Your task to perform on an android device: set the timer Image 0: 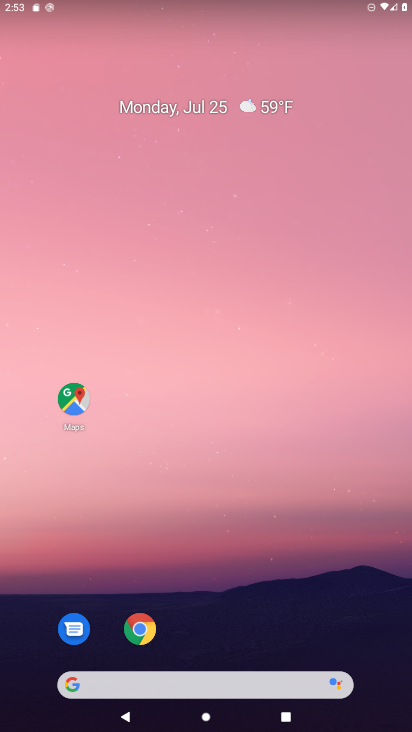
Step 0: click (139, 633)
Your task to perform on an android device: set the timer Image 1: 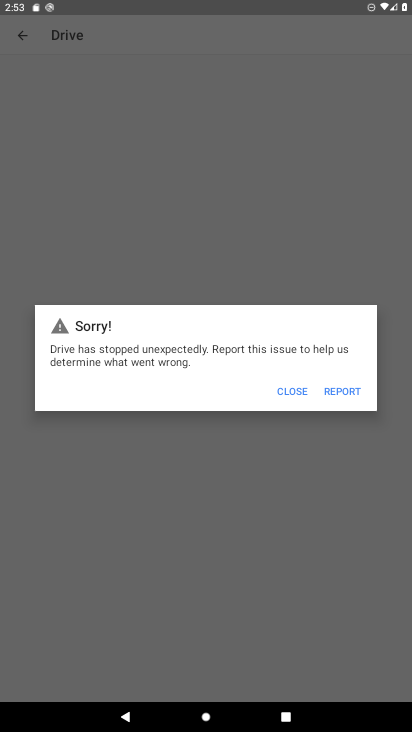
Step 1: press home button
Your task to perform on an android device: set the timer Image 2: 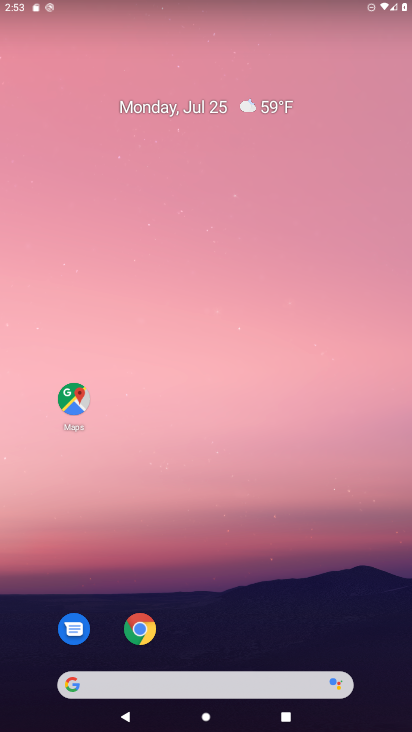
Step 2: drag from (305, 628) to (204, 150)
Your task to perform on an android device: set the timer Image 3: 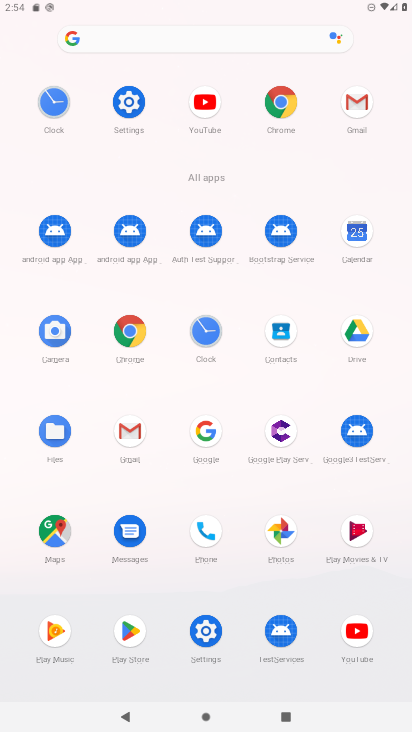
Step 3: click (203, 343)
Your task to perform on an android device: set the timer Image 4: 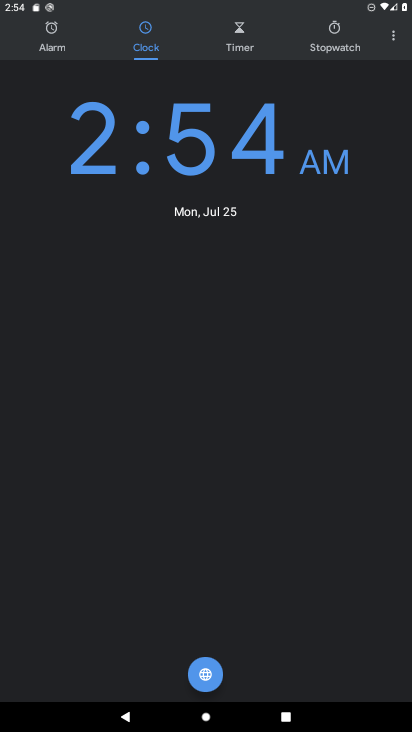
Step 4: click (393, 42)
Your task to perform on an android device: set the timer Image 5: 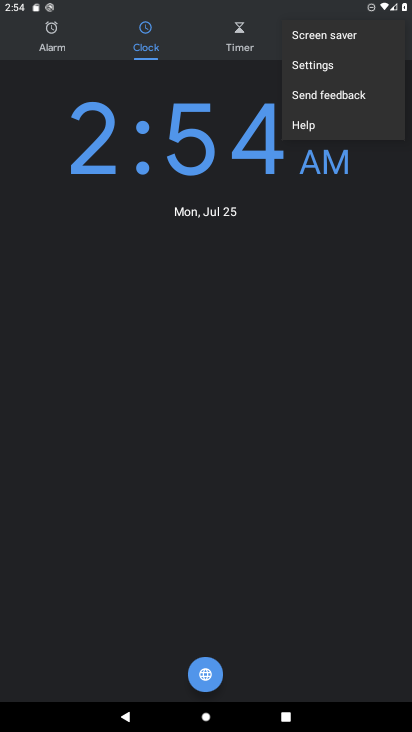
Step 5: click (333, 67)
Your task to perform on an android device: set the timer Image 6: 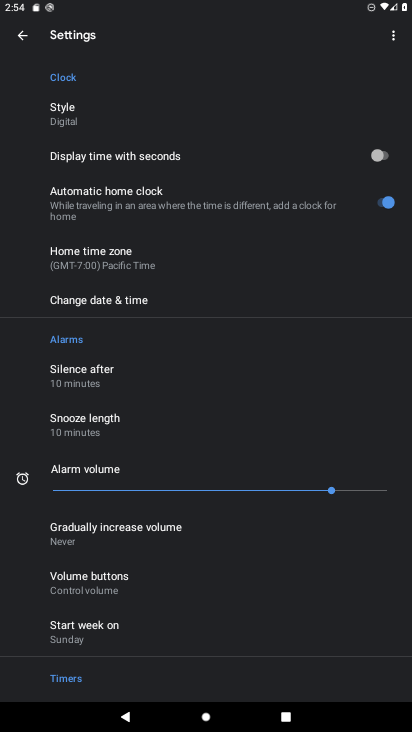
Step 6: click (12, 24)
Your task to perform on an android device: set the timer Image 7: 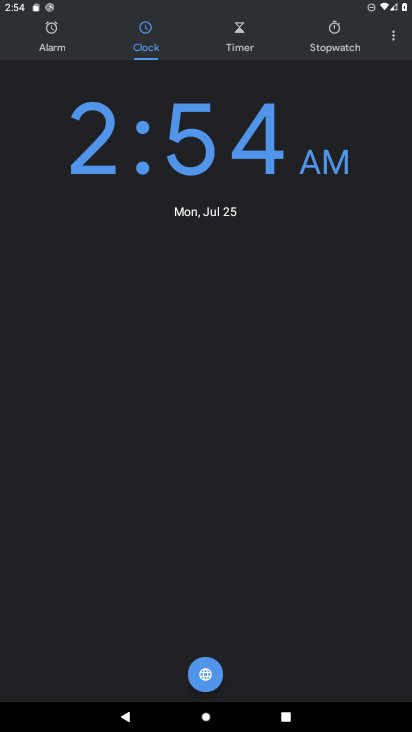
Step 7: click (238, 44)
Your task to perform on an android device: set the timer Image 8: 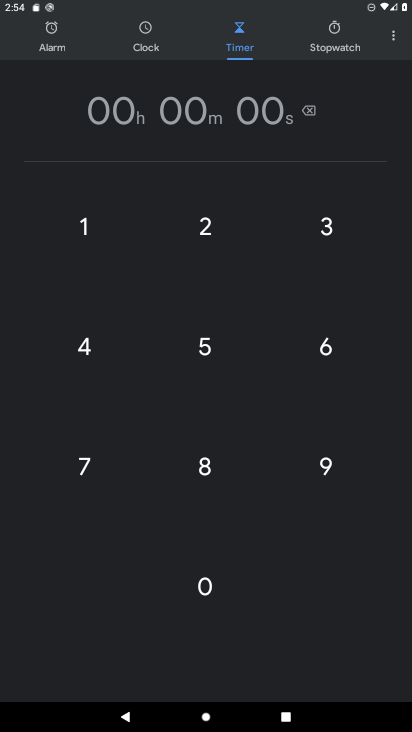
Step 8: click (269, 357)
Your task to perform on an android device: set the timer Image 9: 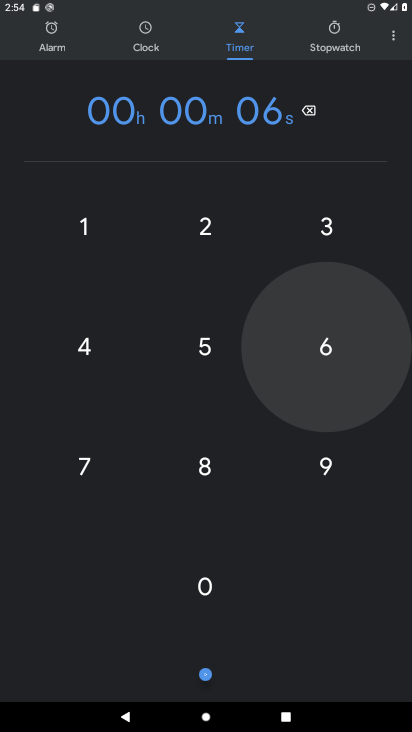
Step 9: click (217, 348)
Your task to perform on an android device: set the timer Image 10: 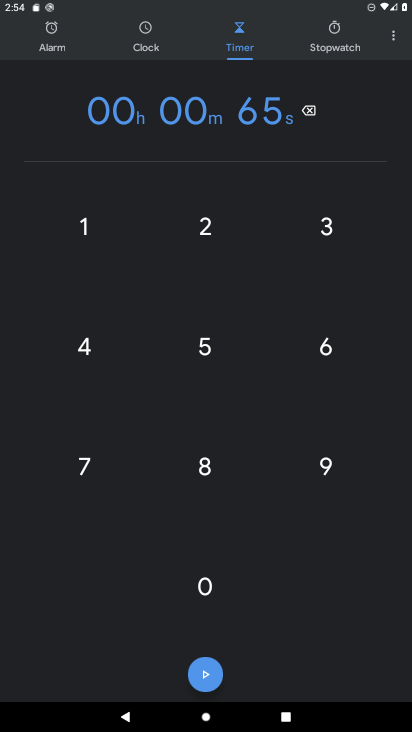
Step 10: click (98, 335)
Your task to perform on an android device: set the timer Image 11: 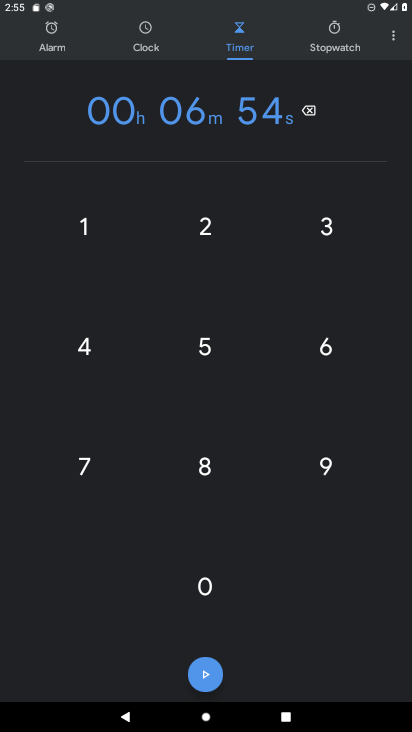
Step 11: task complete